Your task to perform on an android device: Open Google Chrome and open the bookmarks view Image 0: 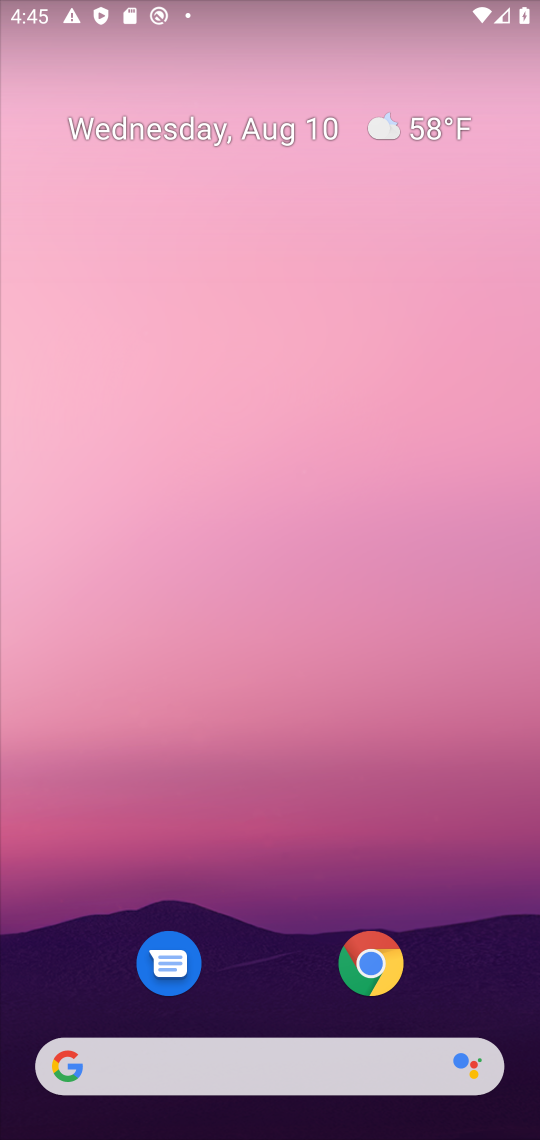
Step 0: drag from (242, 979) to (279, 48)
Your task to perform on an android device: Open Google Chrome and open the bookmarks view Image 1: 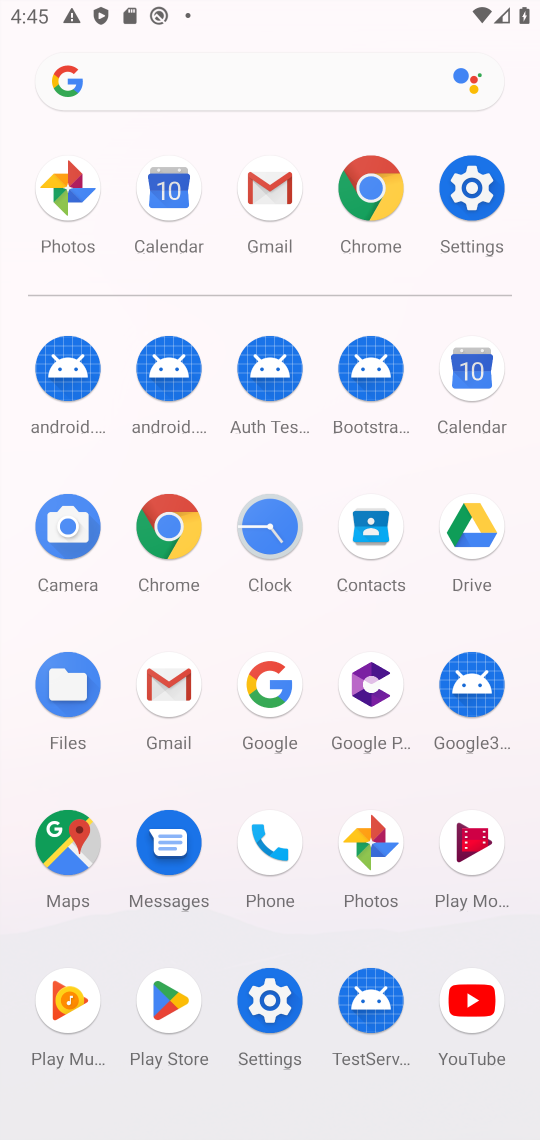
Step 1: click (156, 519)
Your task to perform on an android device: Open Google Chrome and open the bookmarks view Image 2: 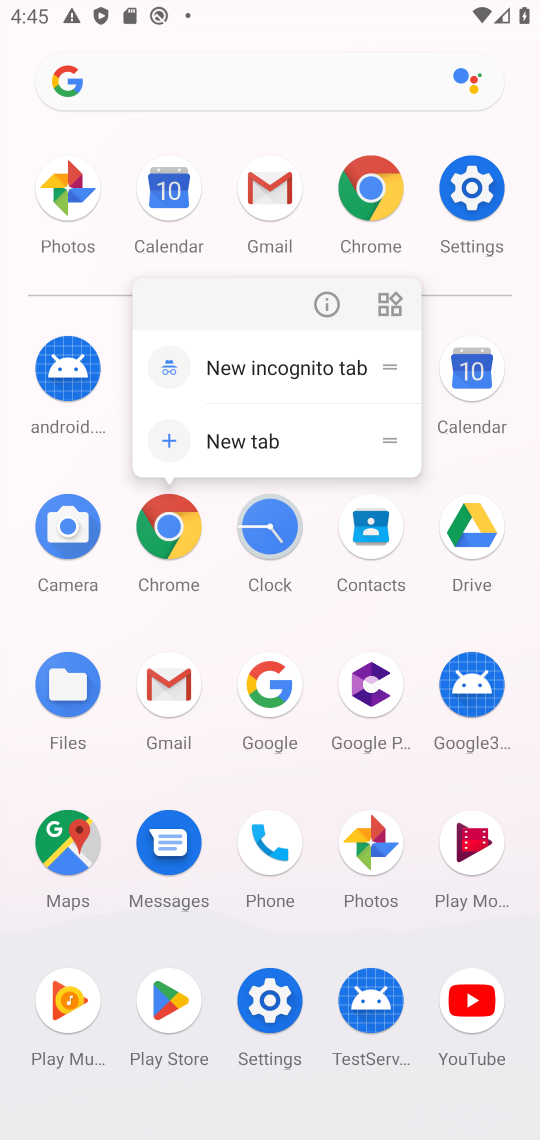
Step 2: click (182, 517)
Your task to perform on an android device: Open Google Chrome and open the bookmarks view Image 3: 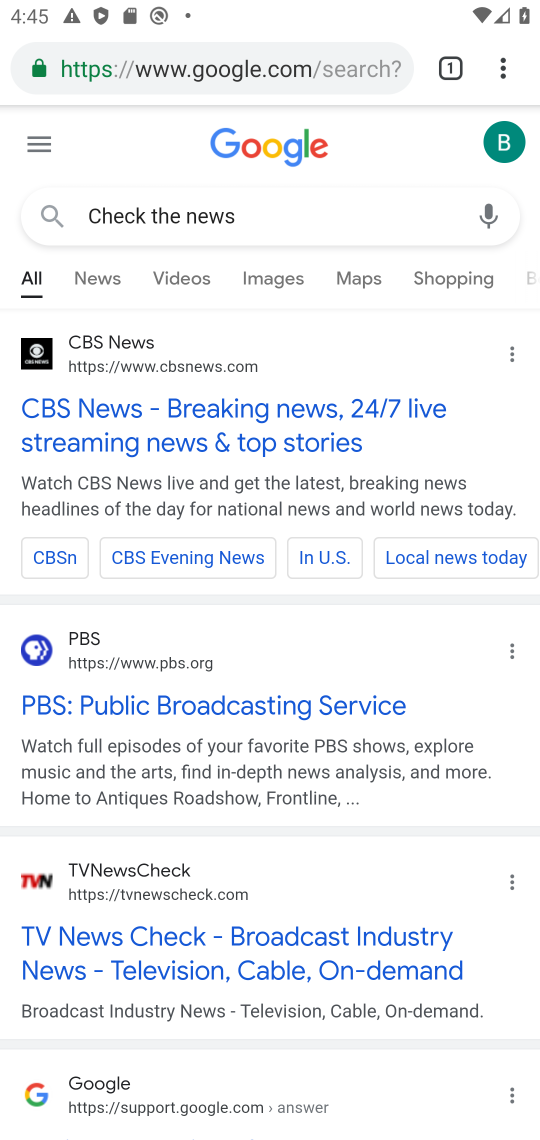
Step 3: click (505, 72)
Your task to perform on an android device: Open Google Chrome and open the bookmarks view Image 4: 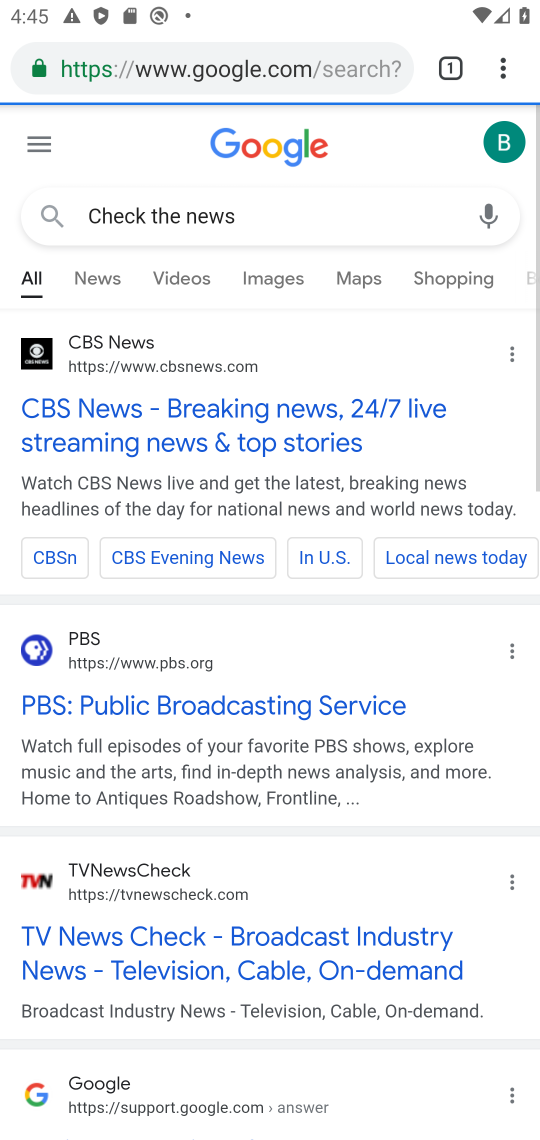
Step 4: click (505, 72)
Your task to perform on an android device: Open Google Chrome and open the bookmarks view Image 5: 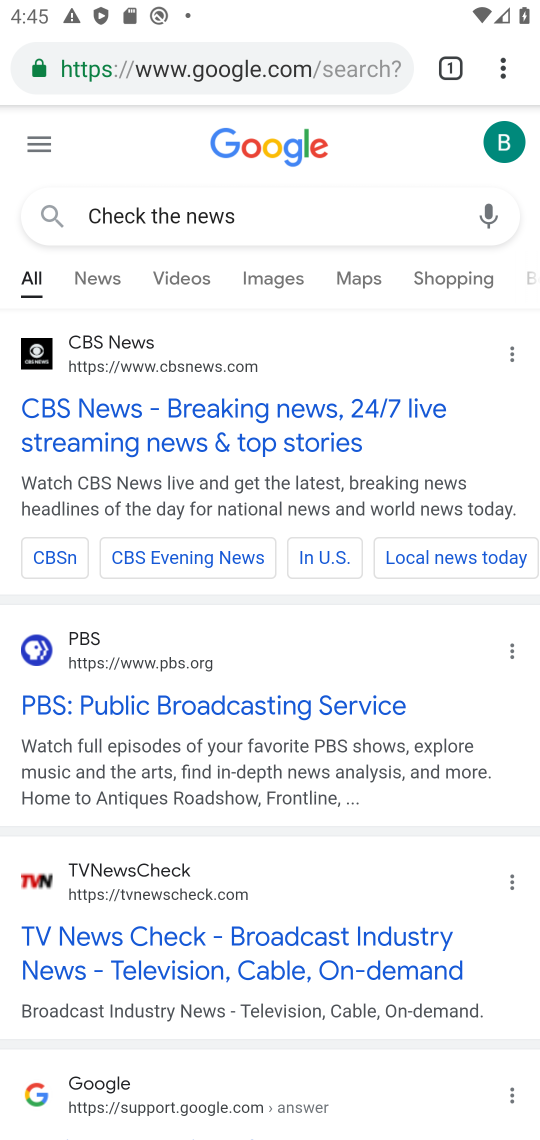
Step 5: task complete